Your task to perform on an android device: check storage Image 0: 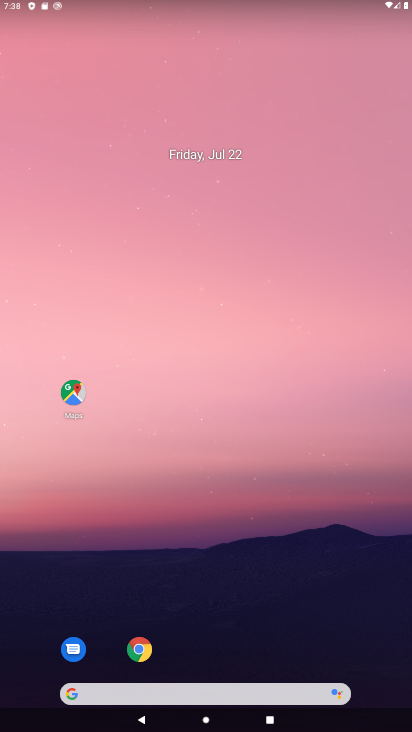
Step 0: drag from (223, 618) to (150, 250)
Your task to perform on an android device: check storage Image 1: 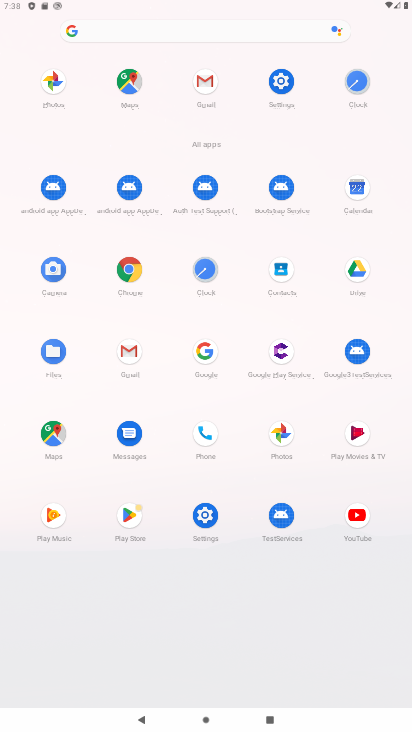
Step 1: click (207, 518)
Your task to perform on an android device: check storage Image 2: 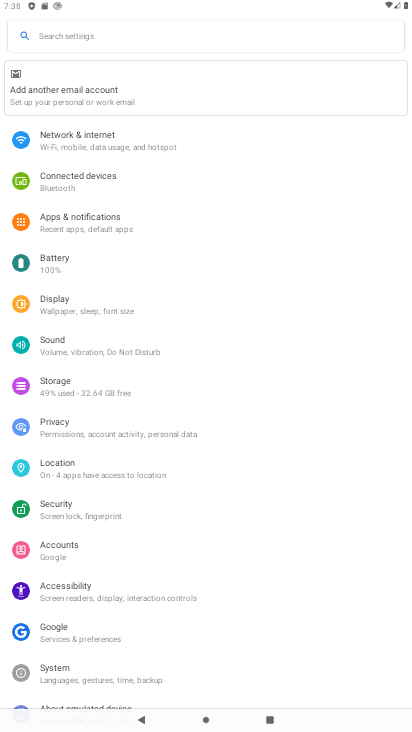
Step 2: click (78, 388)
Your task to perform on an android device: check storage Image 3: 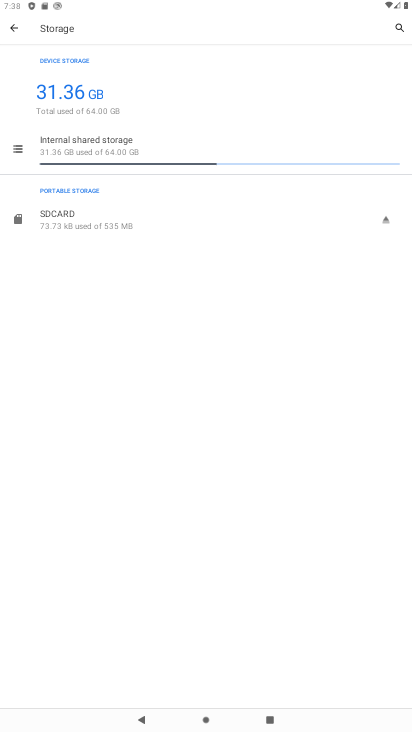
Step 3: task complete